Your task to perform on an android device: Add bose soundlink to the cart on target.com Image 0: 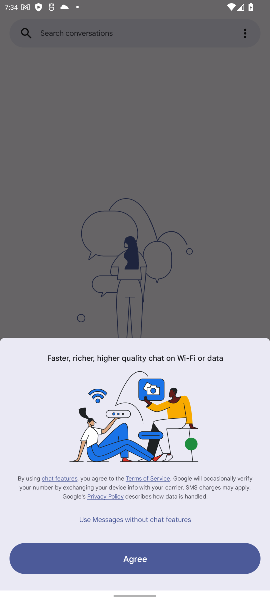
Step 0: press home button
Your task to perform on an android device: Add bose soundlink to the cart on target.com Image 1: 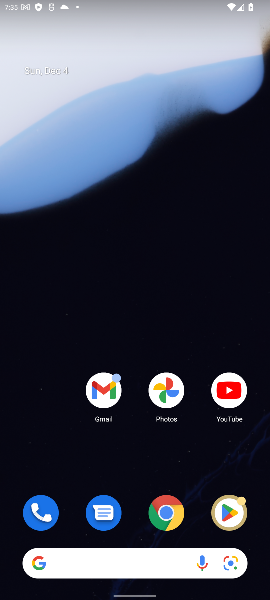
Step 1: click (163, 508)
Your task to perform on an android device: Add bose soundlink to the cart on target.com Image 2: 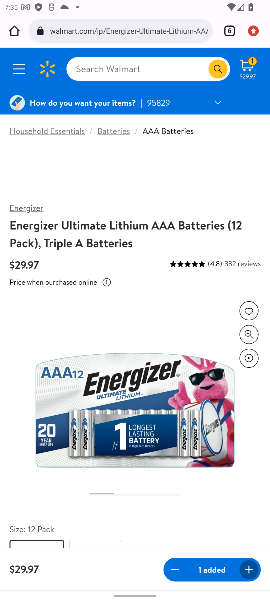
Step 2: click (228, 32)
Your task to perform on an android device: Add bose soundlink to the cart on target.com Image 3: 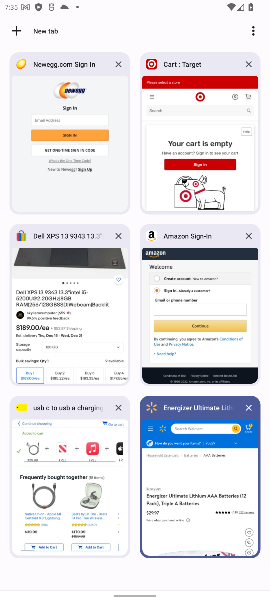
Step 3: click (196, 88)
Your task to perform on an android device: Add bose soundlink to the cart on target.com Image 4: 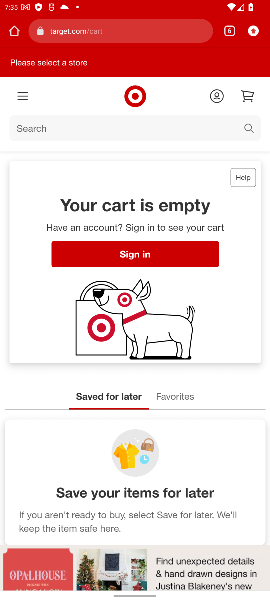
Step 4: click (137, 123)
Your task to perform on an android device: Add bose soundlink to the cart on target.com Image 5: 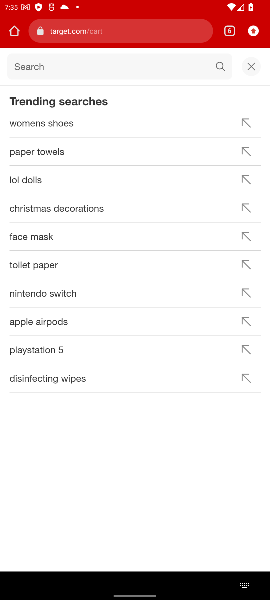
Step 5: type "bose soundlink"
Your task to perform on an android device: Add bose soundlink to the cart on target.com Image 6: 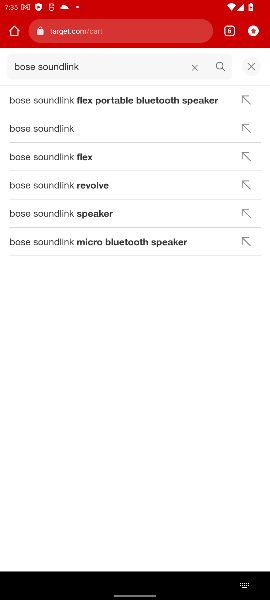
Step 6: click (50, 126)
Your task to perform on an android device: Add bose soundlink to the cart on target.com Image 7: 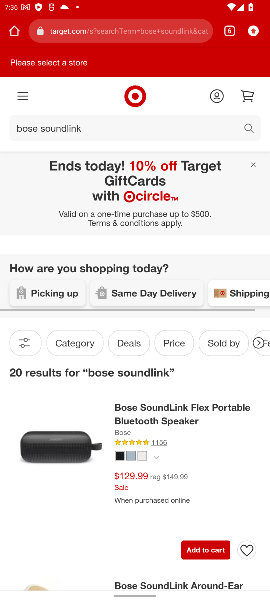
Step 7: click (193, 548)
Your task to perform on an android device: Add bose soundlink to the cart on target.com Image 8: 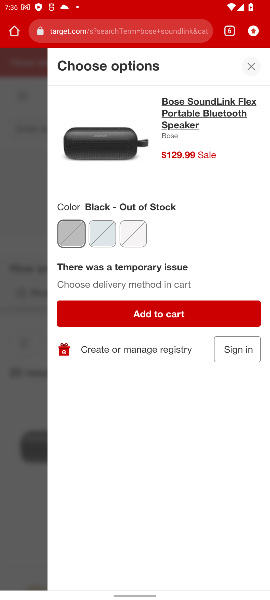
Step 8: task complete